Your task to perform on an android device: turn off sleep mode Image 0: 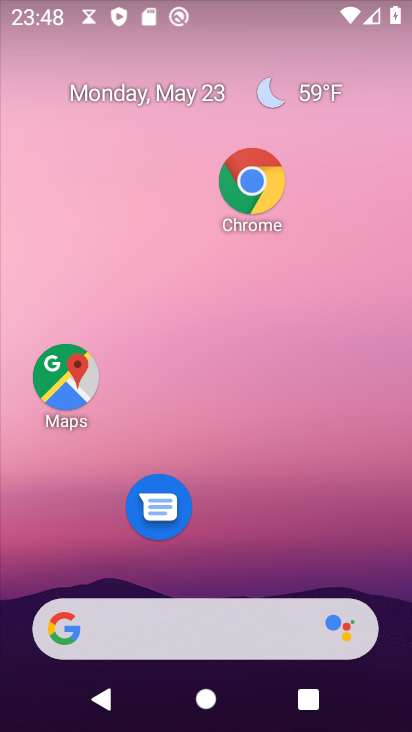
Step 0: drag from (318, 497) to (325, 116)
Your task to perform on an android device: turn off sleep mode Image 1: 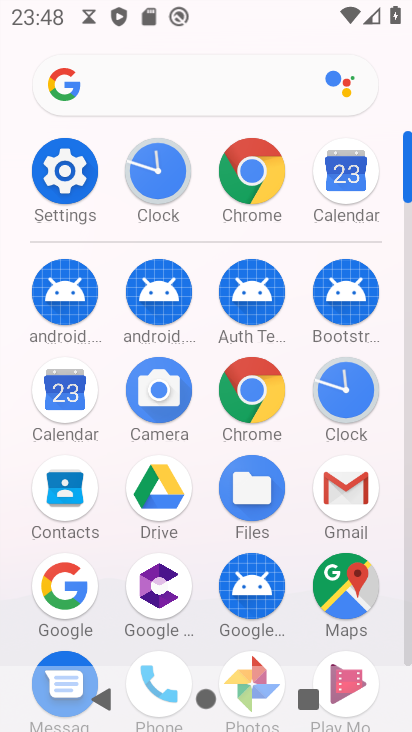
Step 1: click (66, 174)
Your task to perform on an android device: turn off sleep mode Image 2: 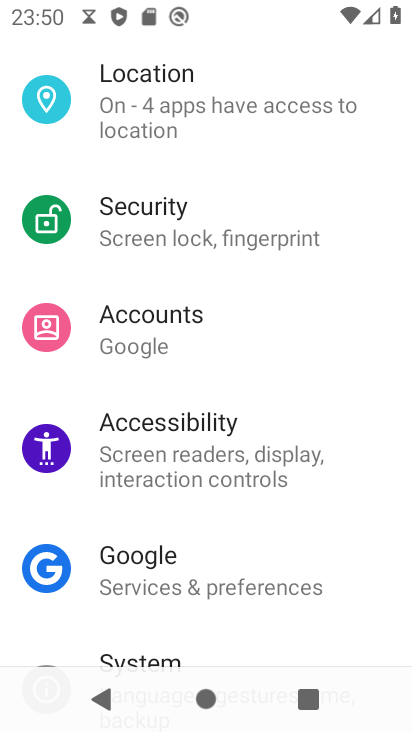
Step 2: task complete